Your task to perform on an android device: toggle data saver in the chrome app Image 0: 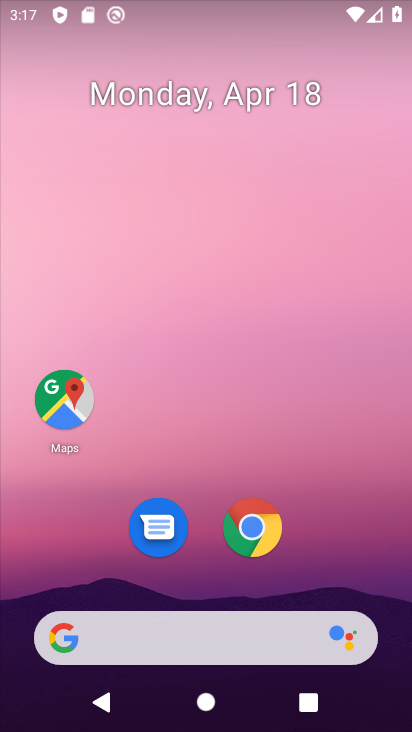
Step 0: click (261, 544)
Your task to perform on an android device: toggle data saver in the chrome app Image 1: 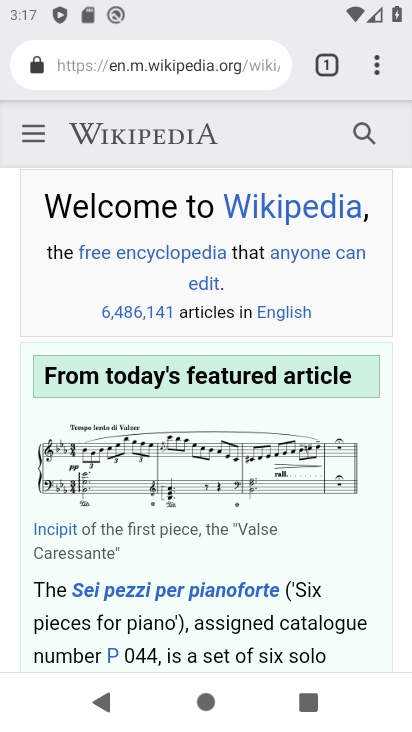
Step 1: drag from (369, 65) to (139, 578)
Your task to perform on an android device: toggle data saver in the chrome app Image 2: 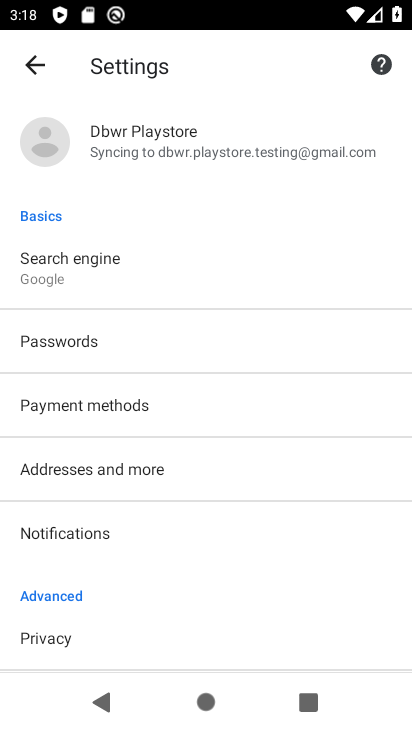
Step 2: drag from (168, 283) to (138, 6)
Your task to perform on an android device: toggle data saver in the chrome app Image 3: 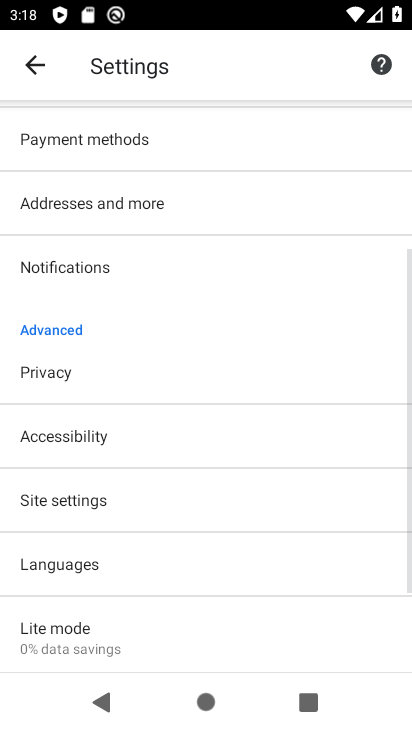
Step 3: click (93, 645)
Your task to perform on an android device: toggle data saver in the chrome app Image 4: 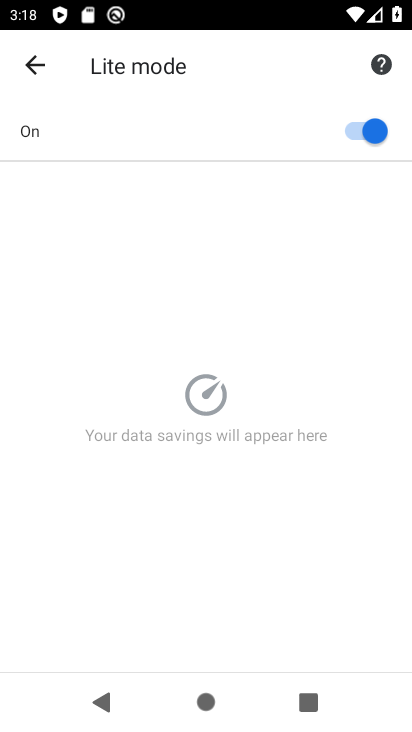
Step 4: click (374, 130)
Your task to perform on an android device: toggle data saver in the chrome app Image 5: 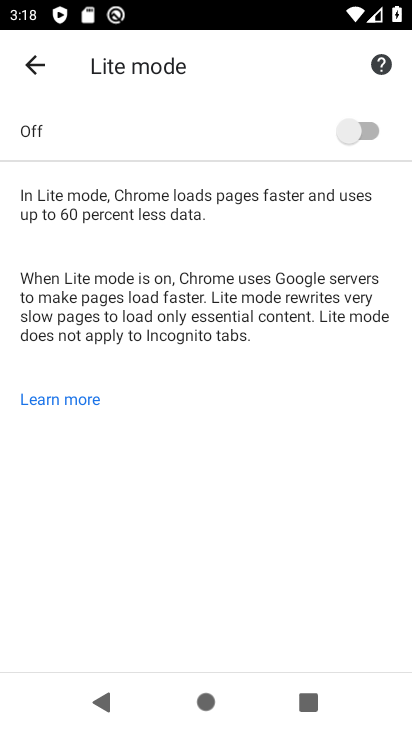
Step 5: task complete